Your task to perform on an android device: Open maps Image 0: 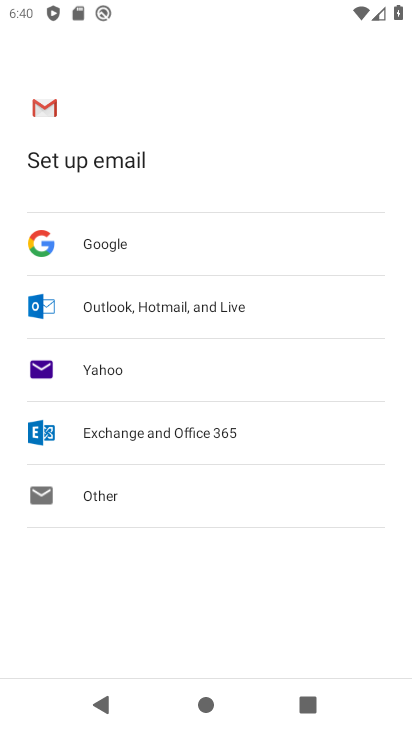
Step 0: press home button
Your task to perform on an android device: Open maps Image 1: 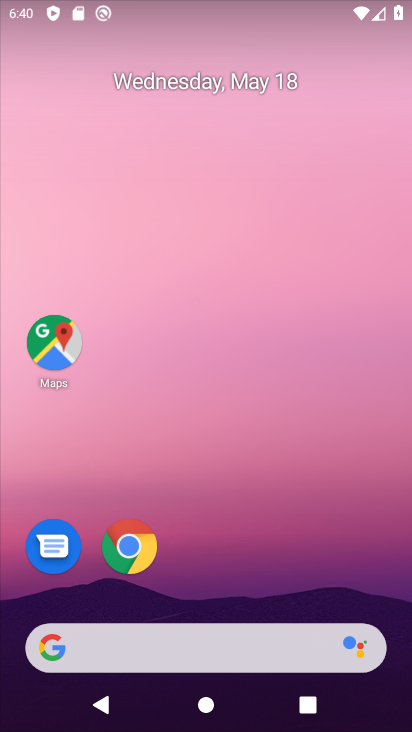
Step 1: drag from (408, 624) to (360, 66)
Your task to perform on an android device: Open maps Image 2: 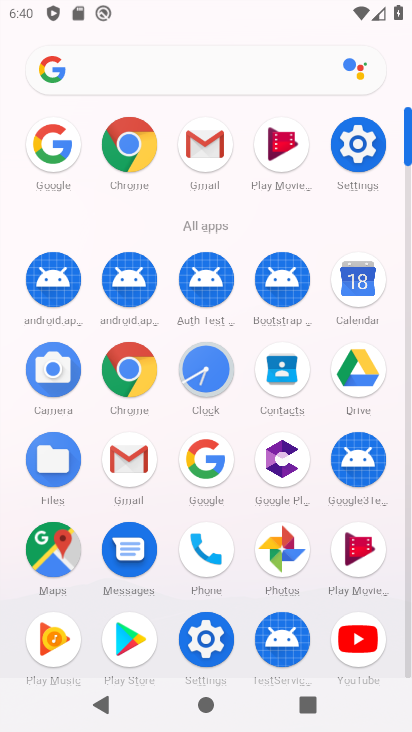
Step 2: click (59, 554)
Your task to perform on an android device: Open maps Image 3: 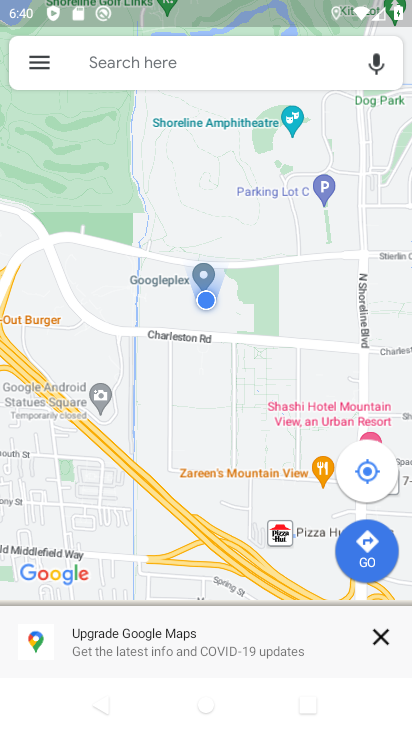
Step 3: task complete